Your task to perform on an android device: snooze an email in the gmail app Image 0: 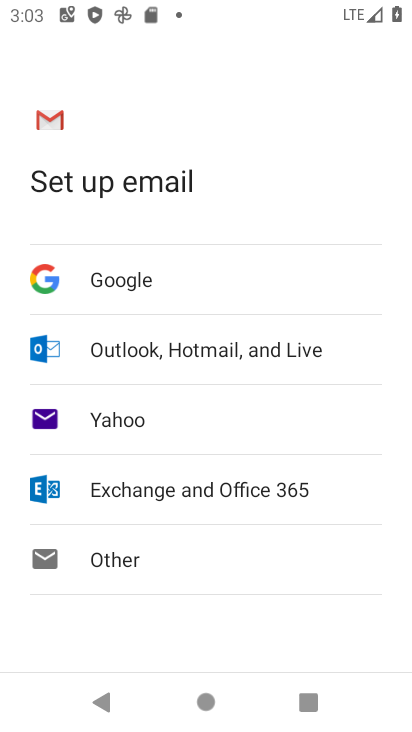
Step 0: press home button
Your task to perform on an android device: snooze an email in the gmail app Image 1: 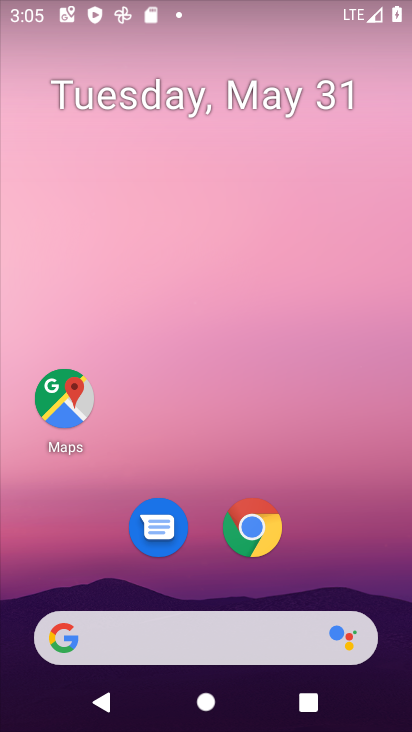
Step 1: drag from (368, 542) to (335, 43)
Your task to perform on an android device: snooze an email in the gmail app Image 2: 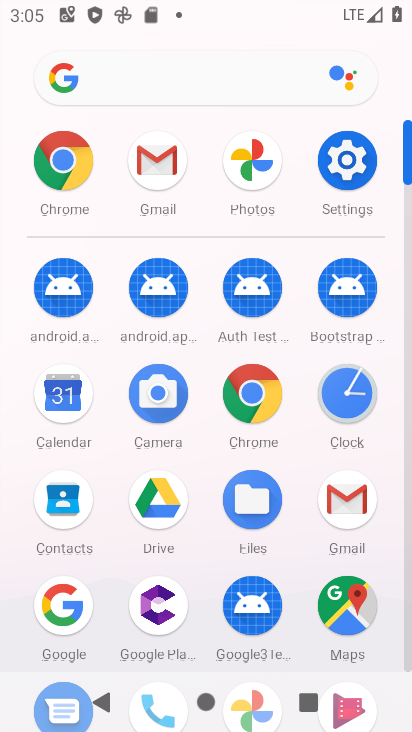
Step 2: click (362, 496)
Your task to perform on an android device: snooze an email in the gmail app Image 3: 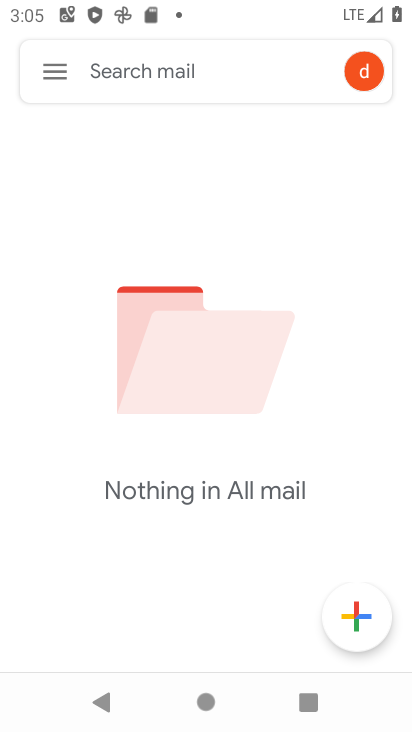
Step 3: click (56, 98)
Your task to perform on an android device: snooze an email in the gmail app Image 4: 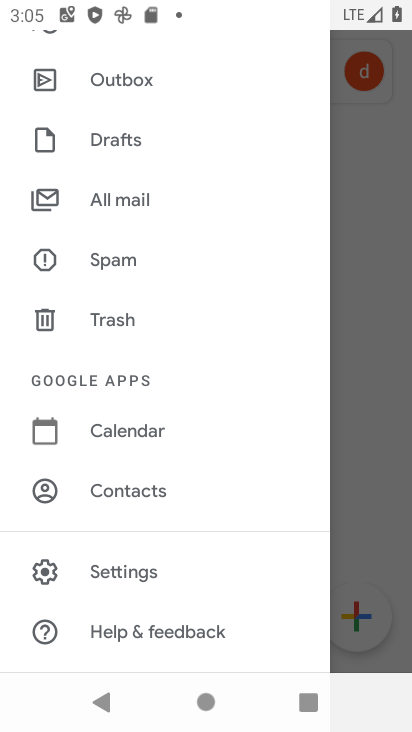
Step 4: task complete